Your task to perform on an android device: turn off picture-in-picture Image 0: 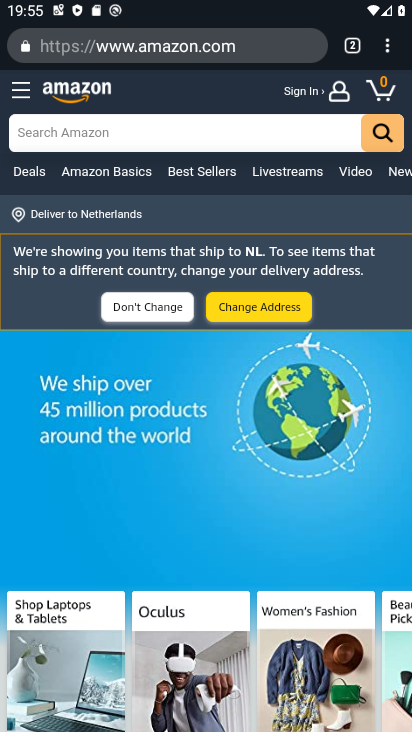
Step 0: press home button
Your task to perform on an android device: turn off picture-in-picture Image 1: 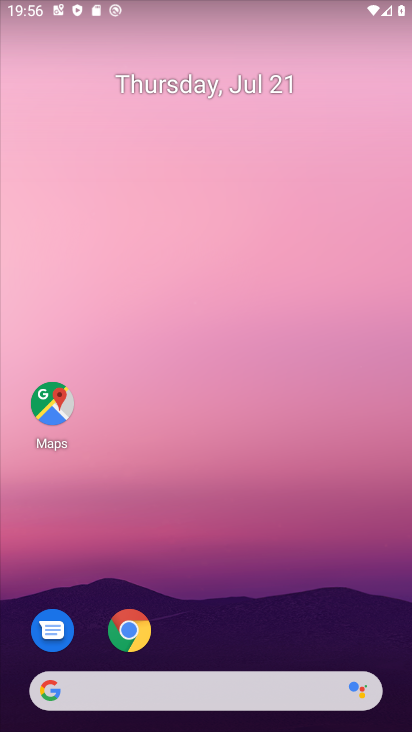
Step 1: click (145, 633)
Your task to perform on an android device: turn off picture-in-picture Image 2: 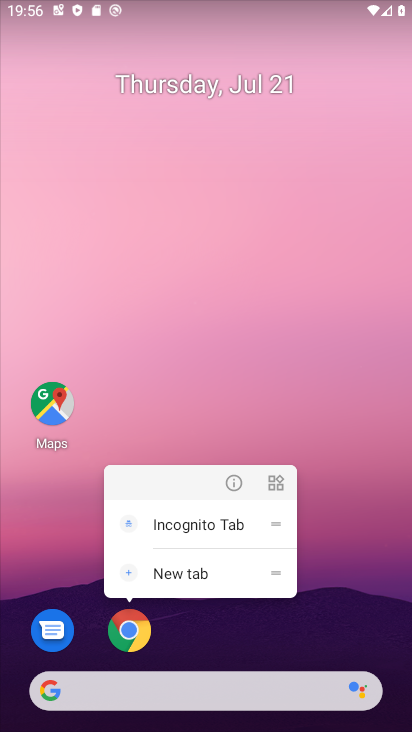
Step 2: click (234, 484)
Your task to perform on an android device: turn off picture-in-picture Image 3: 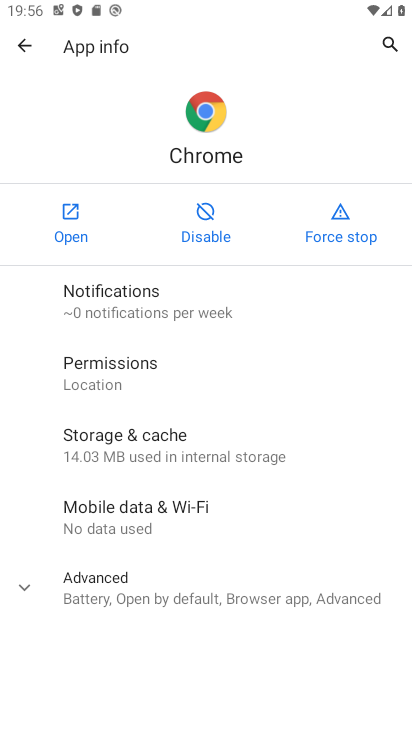
Step 3: click (195, 615)
Your task to perform on an android device: turn off picture-in-picture Image 4: 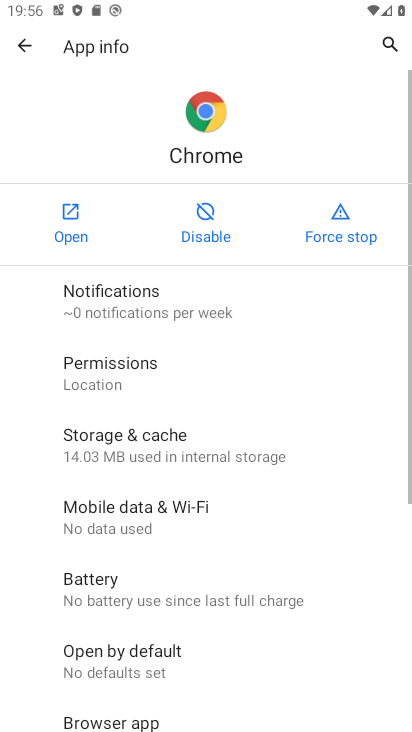
Step 4: drag from (255, 664) to (198, 97)
Your task to perform on an android device: turn off picture-in-picture Image 5: 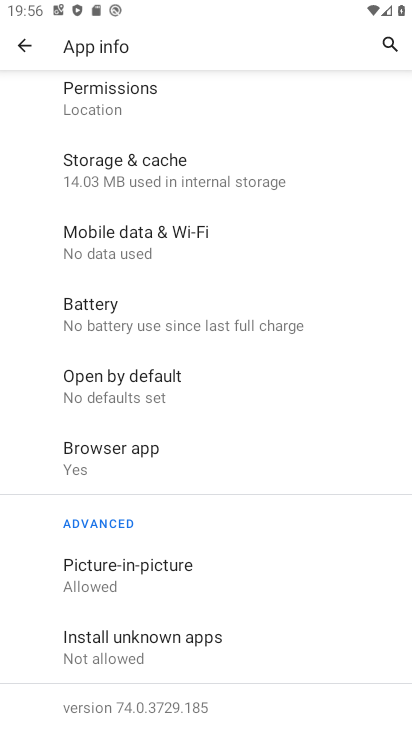
Step 5: click (83, 575)
Your task to perform on an android device: turn off picture-in-picture Image 6: 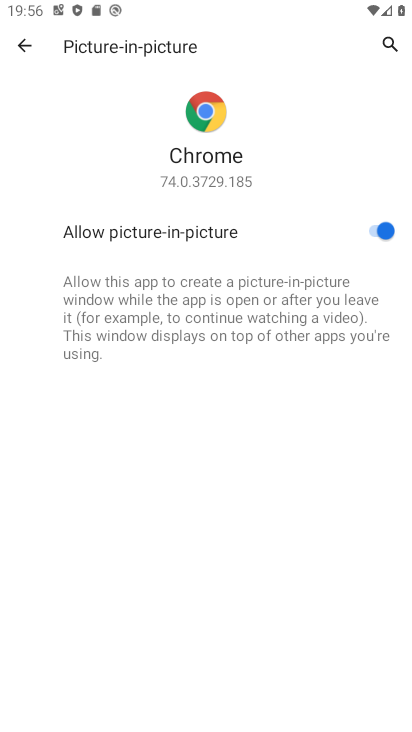
Step 6: click (391, 227)
Your task to perform on an android device: turn off picture-in-picture Image 7: 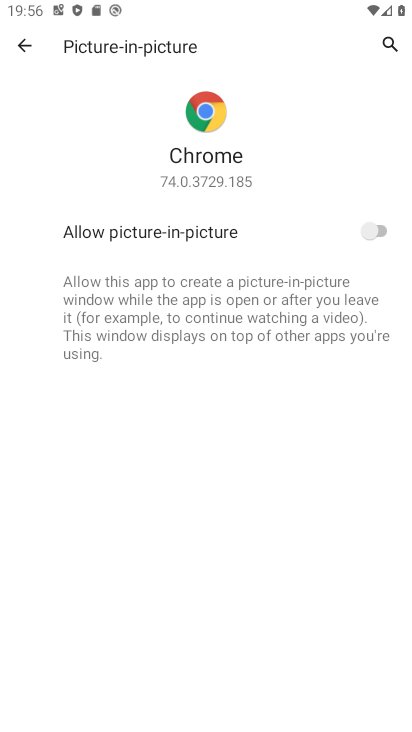
Step 7: task complete